Your task to perform on an android device: Go to display settings Image 0: 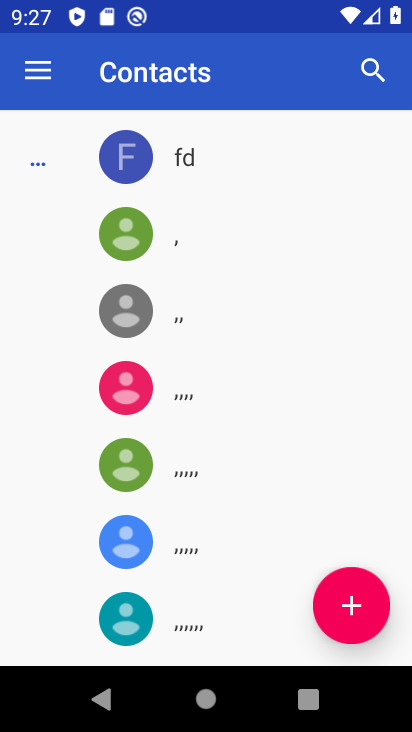
Step 0: press home button
Your task to perform on an android device: Go to display settings Image 1: 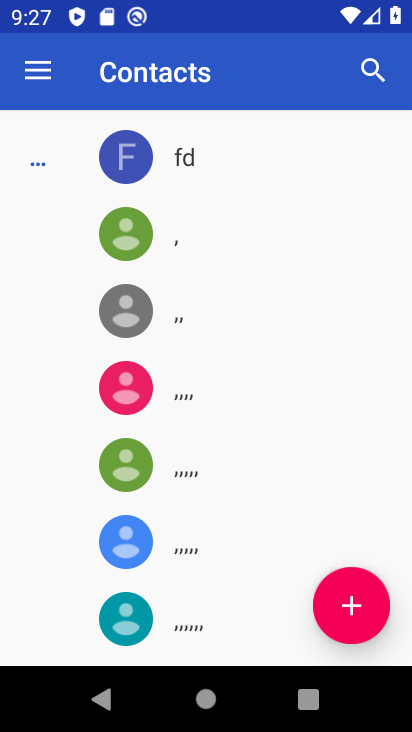
Step 1: press home button
Your task to perform on an android device: Go to display settings Image 2: 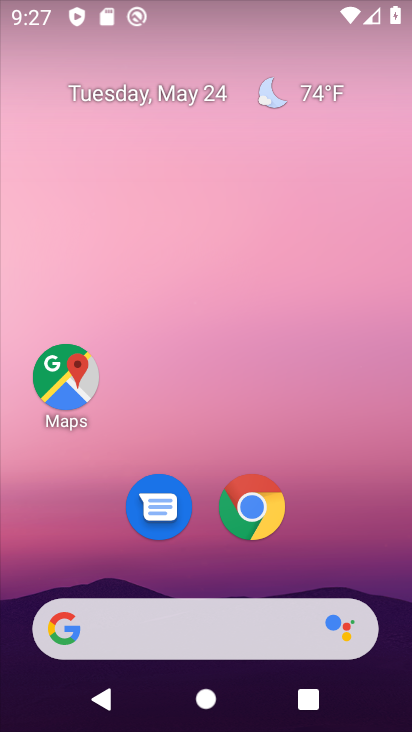
Step 2: drag from (229, 723) to (232, 195)
Your task to perform on an android device: Go to display settings Image 3: 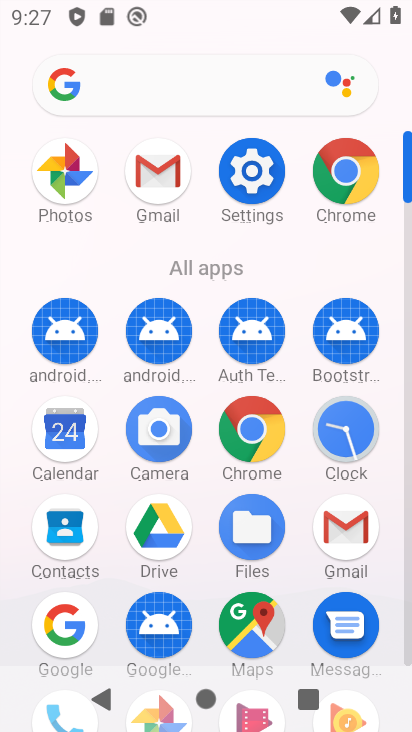
Step 3: click (257, 179)
Your task to perform on an android device: Go to display settings Image 4: 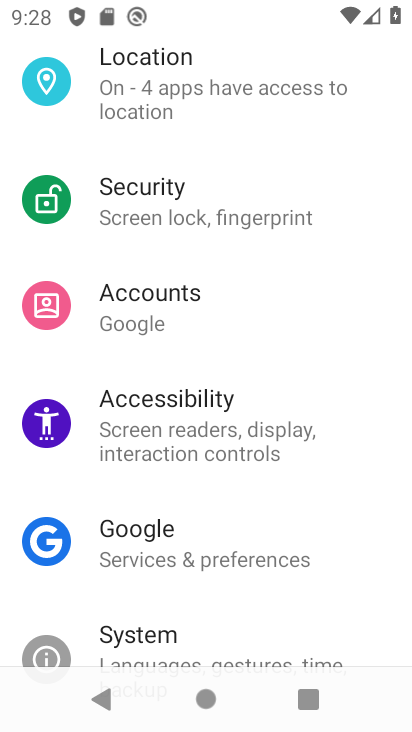
Step 4: drag from (211, 151) to (209, 554)
Your task to perform on an android device: Go to display settings Image 5: 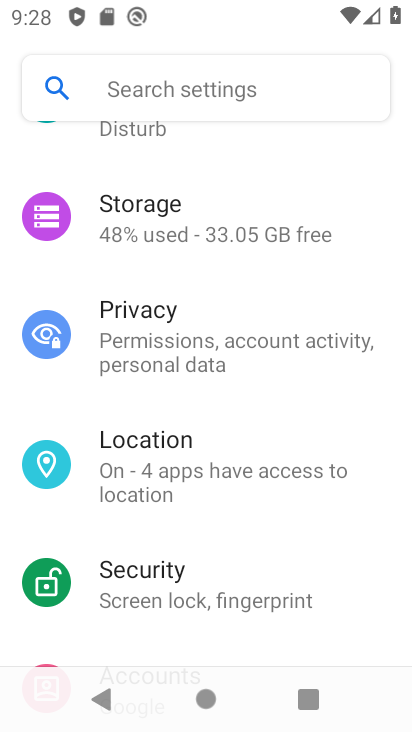
Step 5: drag from (158, 604) to (160, 204)
Your task to perform on an android device: Go to display settings Image 6: 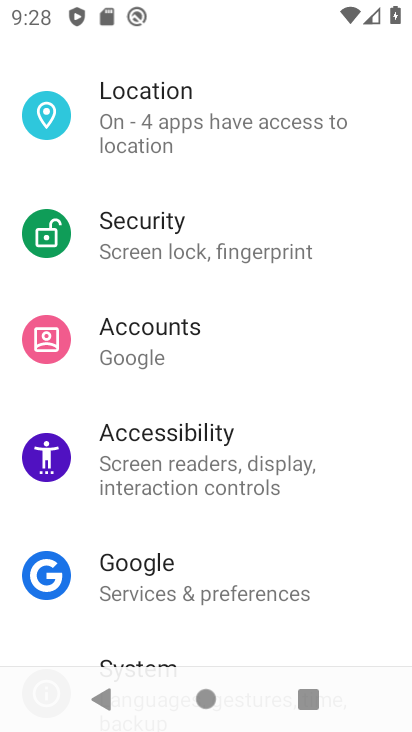
Step 6: drag from (212, 208) to (191, 551)
Your task to perform on an android device: Go to display settings Image 7: 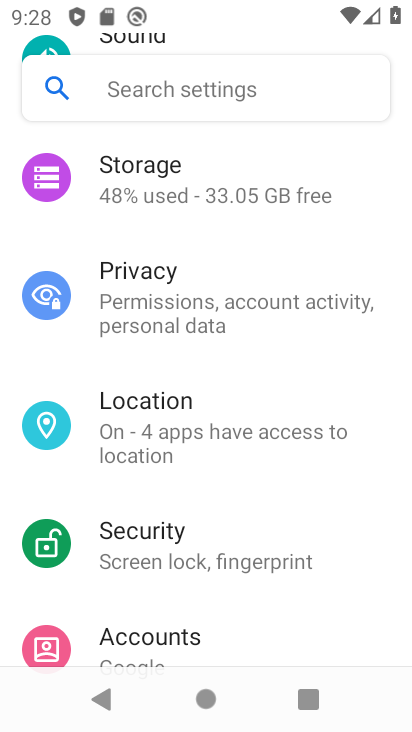
Step 7: drag from (189, 234) to (171, 535)
Your task to perform on an android device: Go to display settings Image 8: 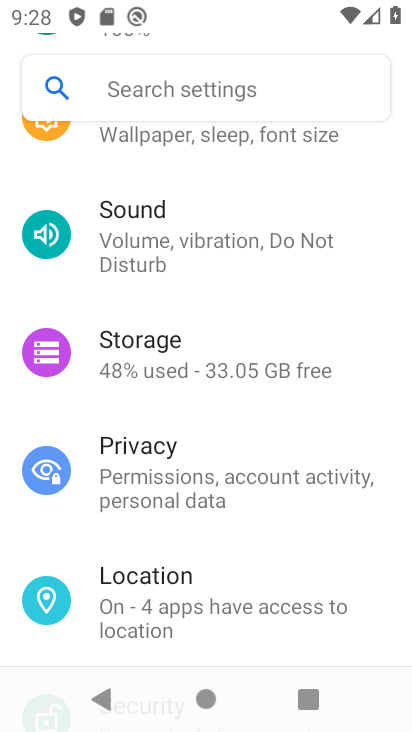
Step 8: drag from (220, 224) to (218, 656)
Your task to perform on an android device: Go to display settings Image 9: 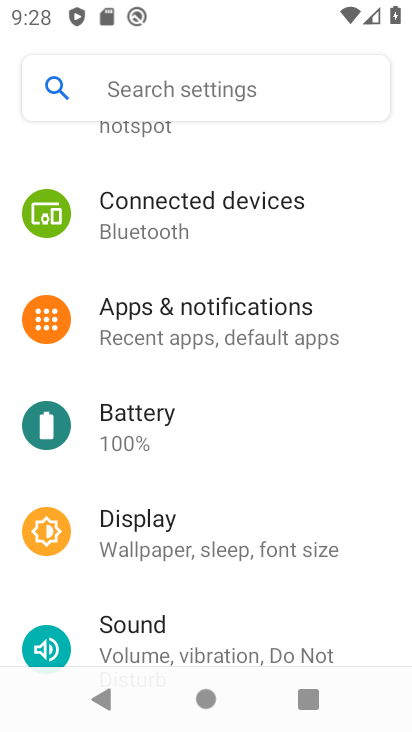
Step 9: drag from (199, 271) to (174, 613)
Your task to perform on an android device: Go to display settings Image 10: 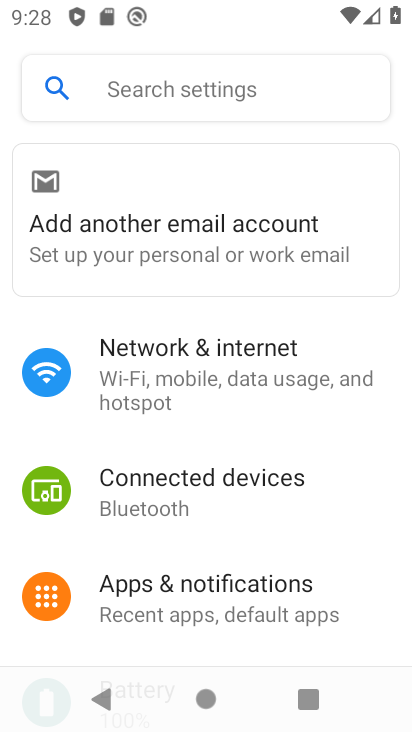
Step 10: drag from (178, 580) to (182, 253)
Your task to perform on an android device: Go to display settings Image 11: 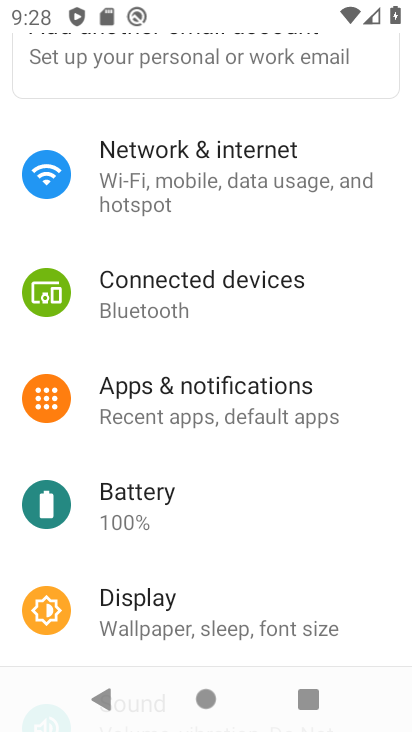
Step 11: click (148, 609)
Your task to perform on an android device: Go to display settings Image 12: 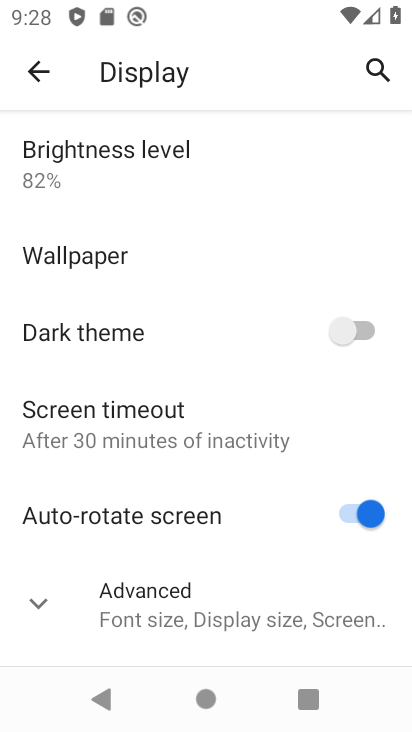
Step 12: task complete